Your task to perform on an android device: Open Youtube and go to the subscriptions tab Image 0: 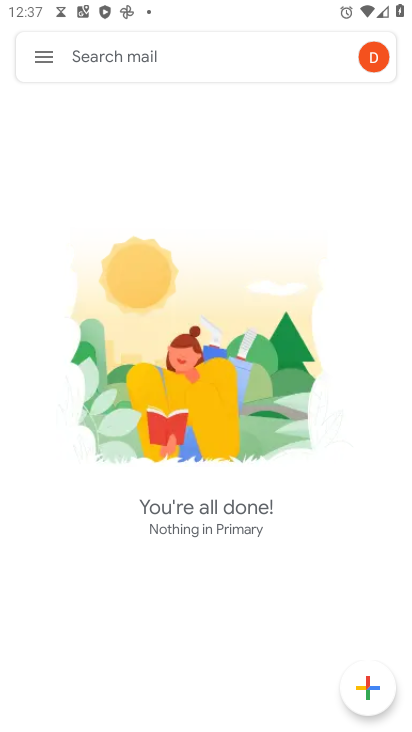
Step 0: press home button
Your task to perform on an android device: Open Youtube and go to the subscriptions tab Image 1: 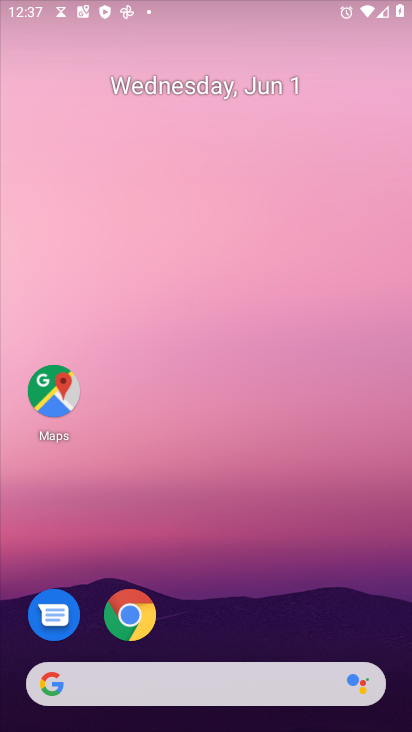
Step 1: drag from (318, 549) to (321, 7)
Your task to perform on an android device: Open Youtube and go to the subscriptions tab Image 2: 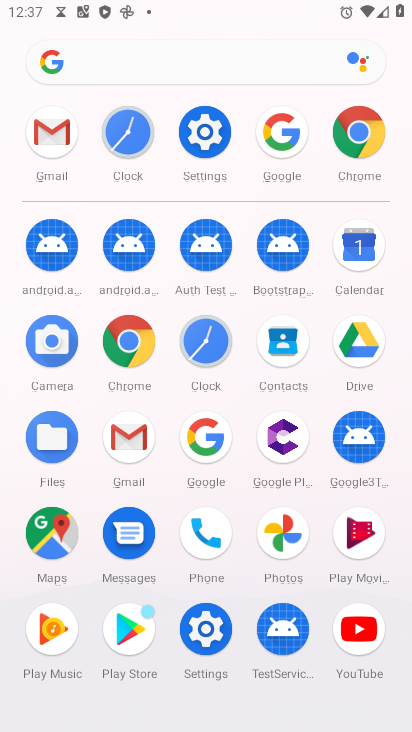
Step 2: click (369, 659)
Your task to perform on an android device: Open Youtube and go to the subscriptions tab Image 3: 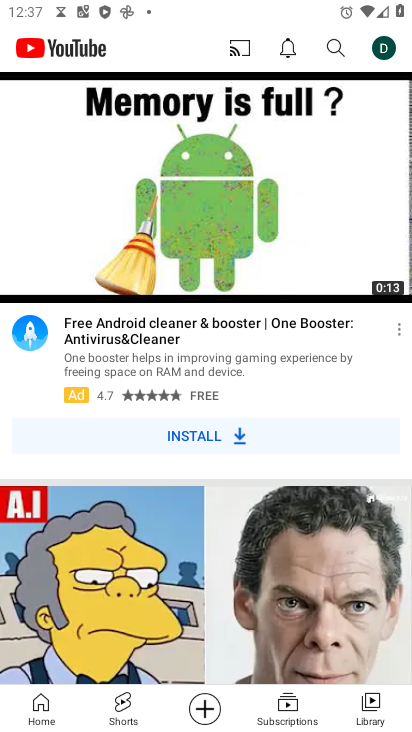
Step 3: click (295, 705)
Your task to perform on an android device: Open Youtube and go to the subscriptions tab Image 4: 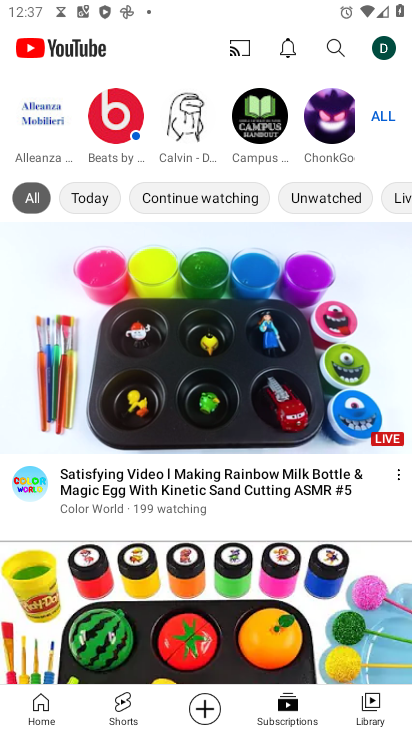
Step 4: task complete